Your task to perform on an android device: change the clock display to show seconds Image 0: 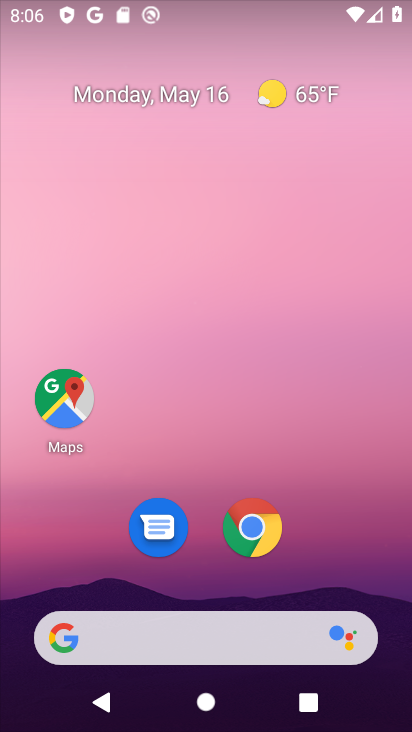
Step 0: drag from (299, 545) to (292, 228)
Your task to perform on an android device: change the clock display to show seconds Image 1: 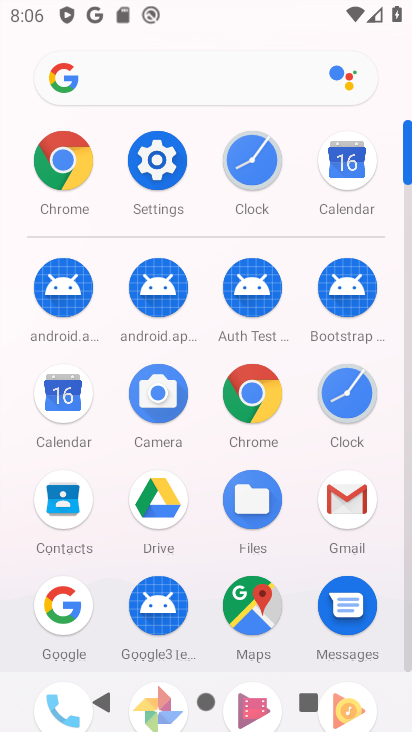
Step 1: click (350, 394)
Your task to perform on an android device: change the clock display to show seconds Image 2: 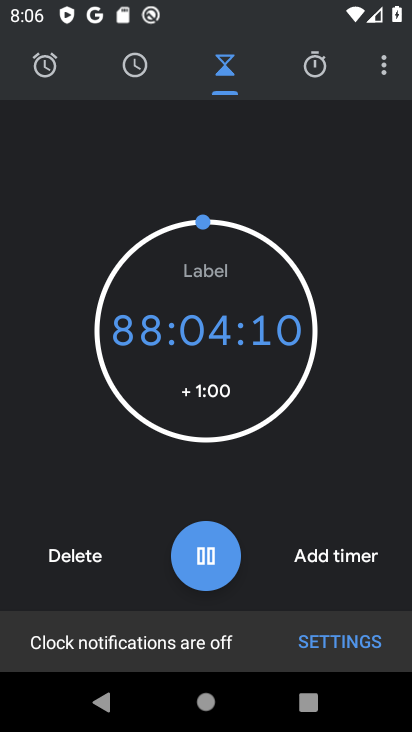
Step 2: click (370, 55)
Your task to perform on an android device: change the clock display to show seconds Image 3: 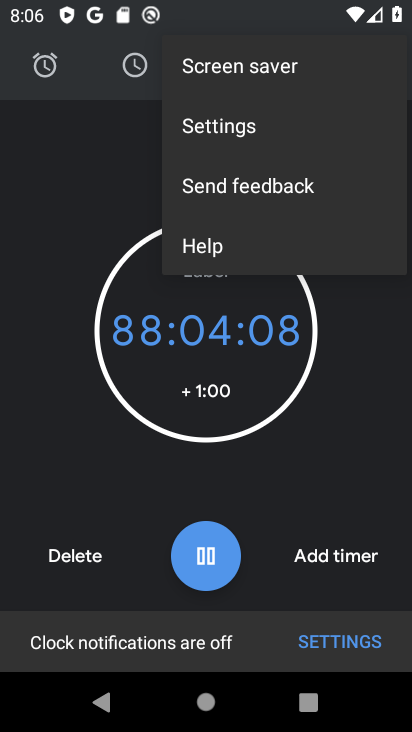
Step 3: click (197, 124)
Your task to perform on an android device: change the clock display to show seconds Image 4: 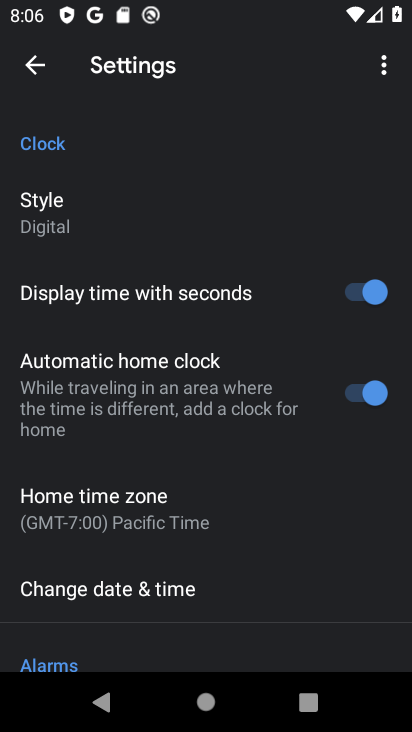
Step 4: click (355, 284)
Your task to perform on an android device: change the clock display to show seconds Image 5: 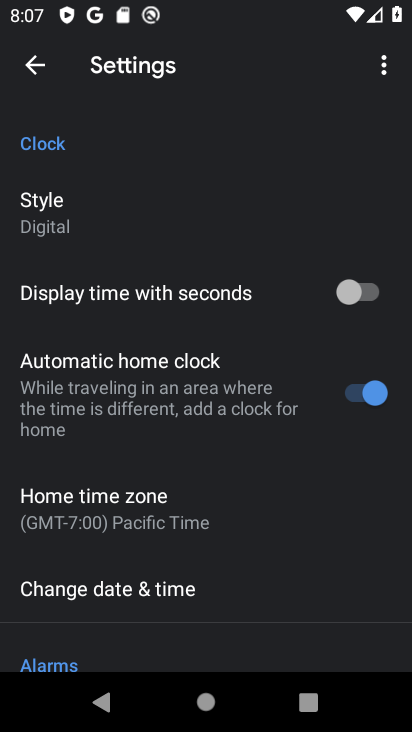
Step 5: task complete